Your task to perform on an android device: open sync settings in chrome Image 0: 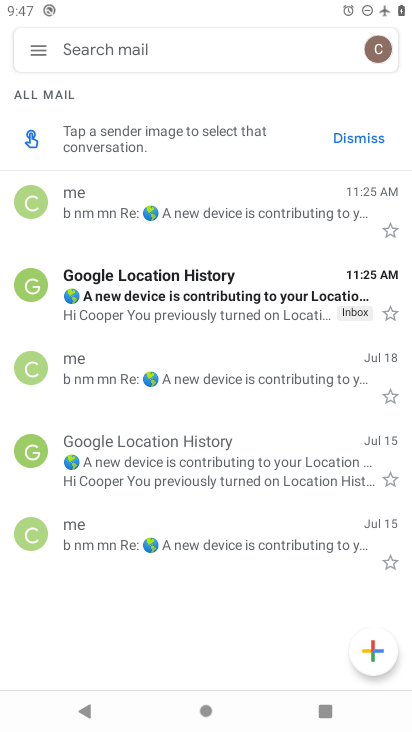
Step 0: press home button
Your task to perform on an android device: open sync settings in chrome Image 1: 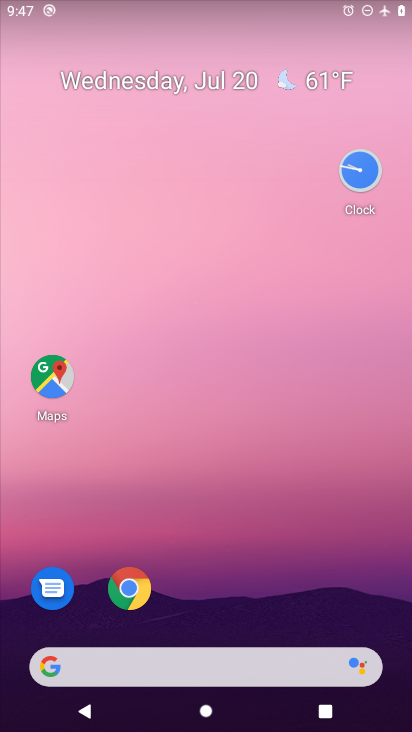
Step 1: click (118, 579)
Your task to perform on an android device: open sync settings in chrome Image 2: 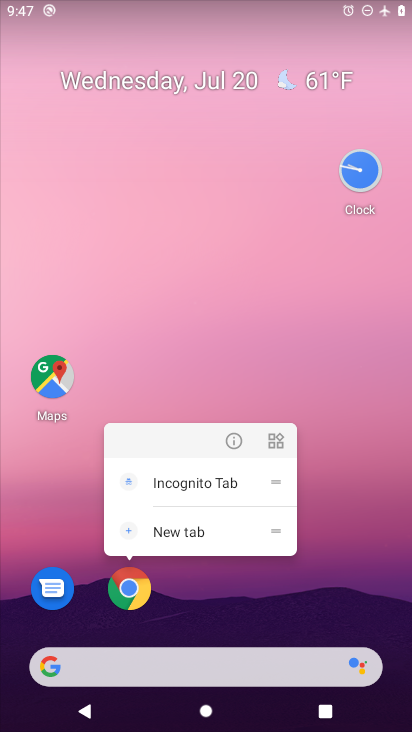
Step 2: click (118, 583)
Your task to perform on an android device: open sync settings in chrome Image 3: 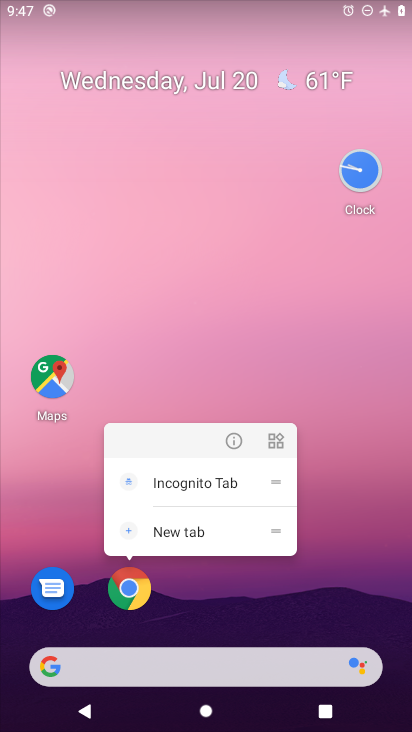
Step 3: click (130, 583)
Your task to perform on an android device: open sync settings in chrome Image 4: 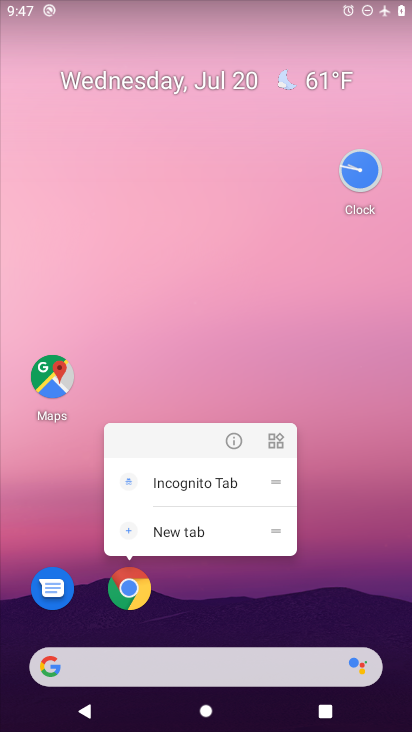
Step 4: click (127, 591)
Your task to perform on an android device: open sync settings in chrome Image 5: 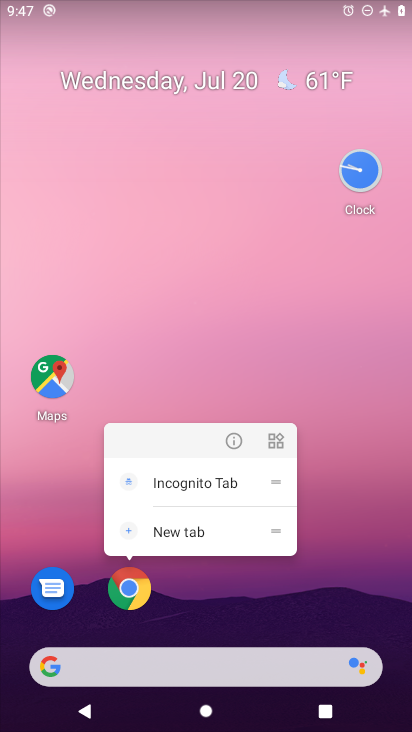
Step 5: click (134, 592)
Your task to perform on an android device: open sync settings in chrome Image 6: 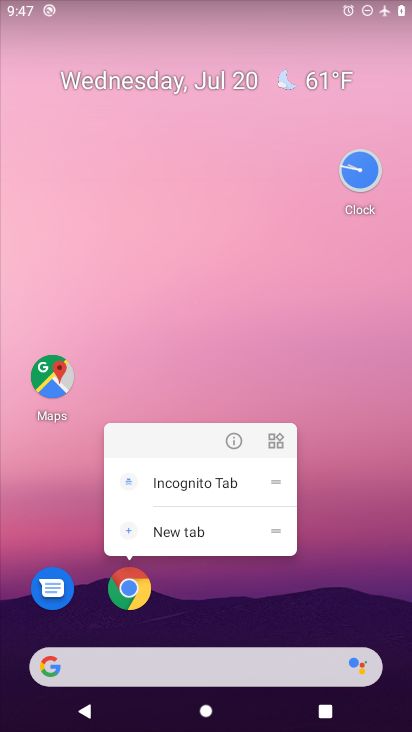
Step 6: click (145, 591)
Your task to perform on an android device: open sync settings in chrome Image 7: 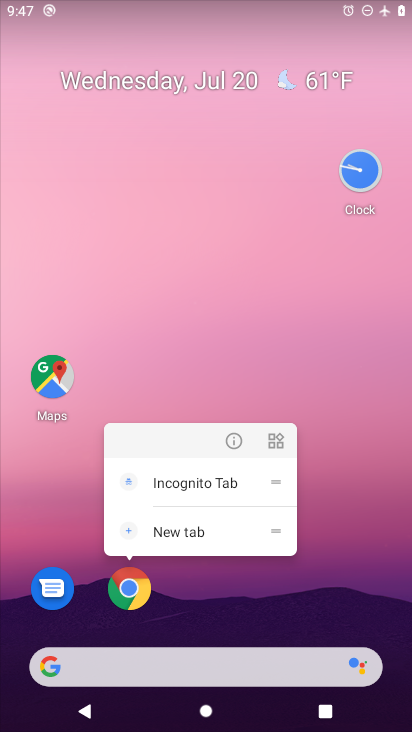
Step 7: task complete